Your task to perform on an android device: Open Youtube and go to the subscriptions tab Image 0: 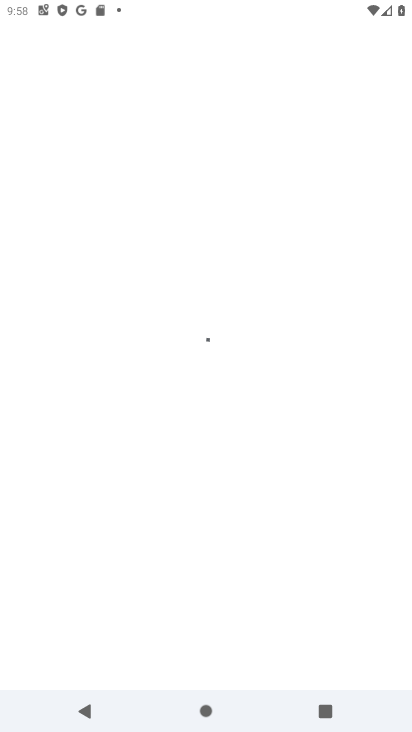
Step 0: press home button
Your task to perform on an android device: Open Youtube and go to the subscriptions tab Image 1: 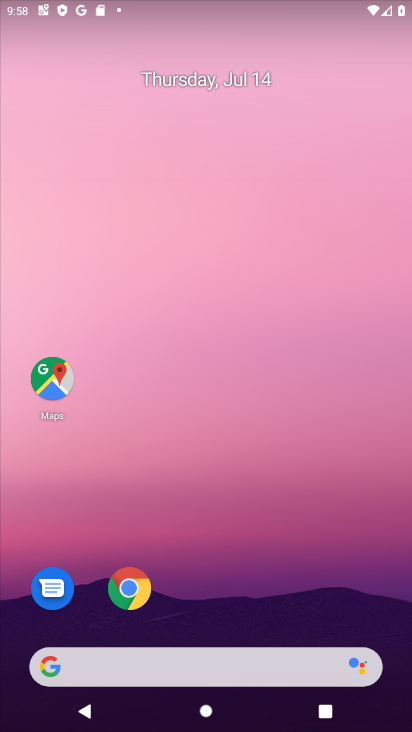
Step 1: drag from (144, 660) to (278, 22)
Your task to perform on an android device: Open Youtube and go to the subscriptions tab Image 2: 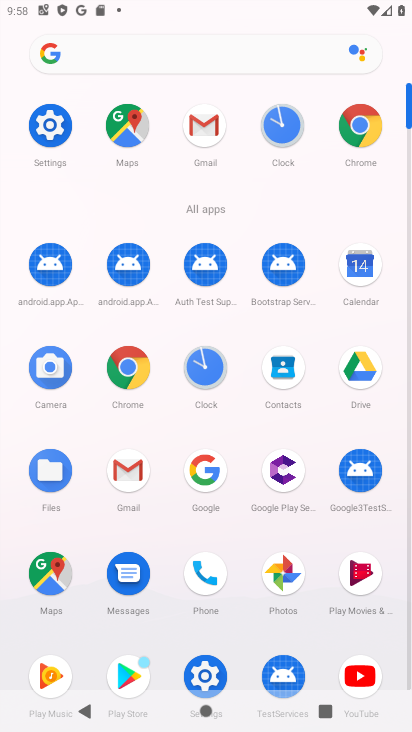
Step 2: click (370, 679)
Your task to perform on an android device: Open Youtube and go to the subscriptions tab Image 3: 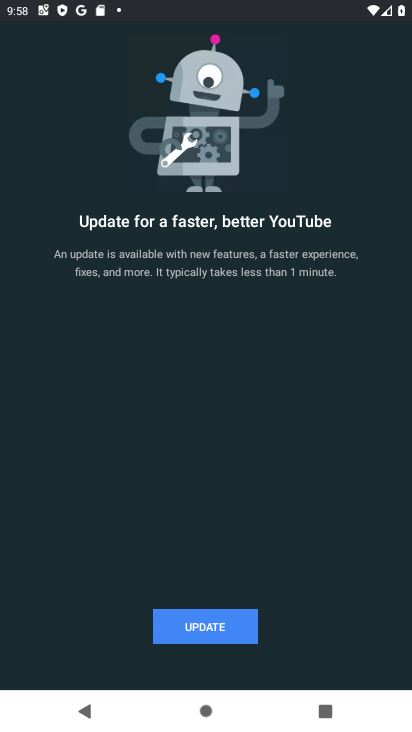
Step 3: click (221, 624)
Your task to perform on an android device: Open Youtube and go to the subscriptions tab Image 4: 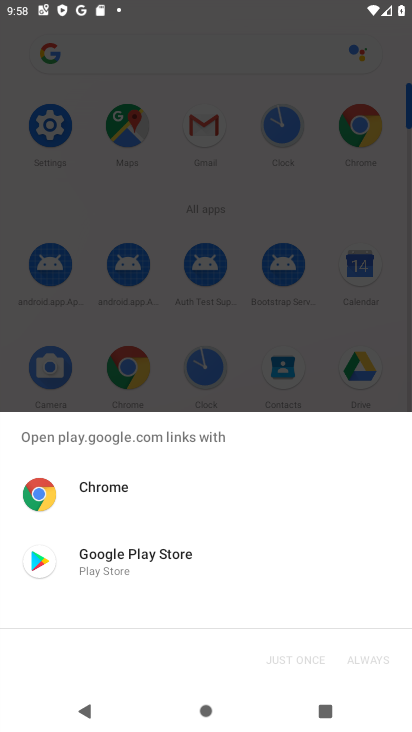
Step 4: click (143, 557)
Your task to perform on an android device: Open Youtube and go to the subscriptions tab Image 5: 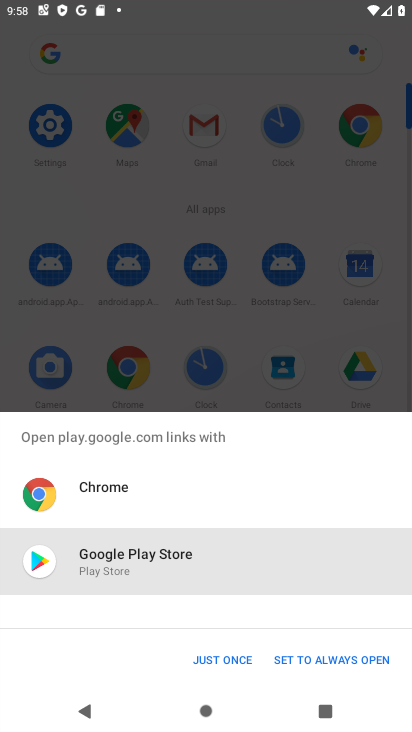
Step 5: click (221, 658)
Your task to perform on an android device: Open Youtube and go to the subscriptions tab Image 6: 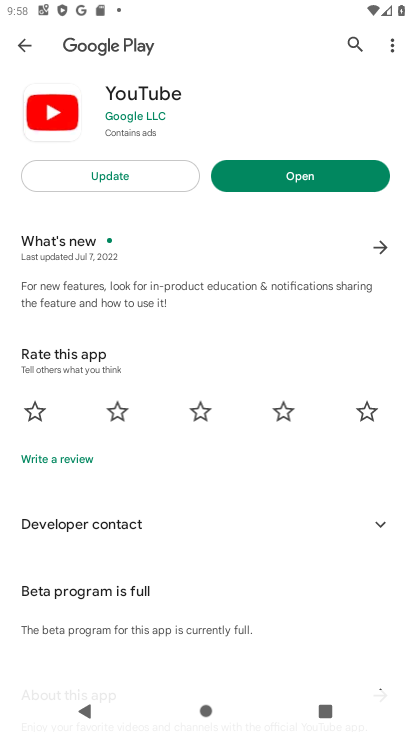
Step 6: click (129, 173)
Your task to perform on an android device: Open Youtube and go to the subscriptions tab Image 7: 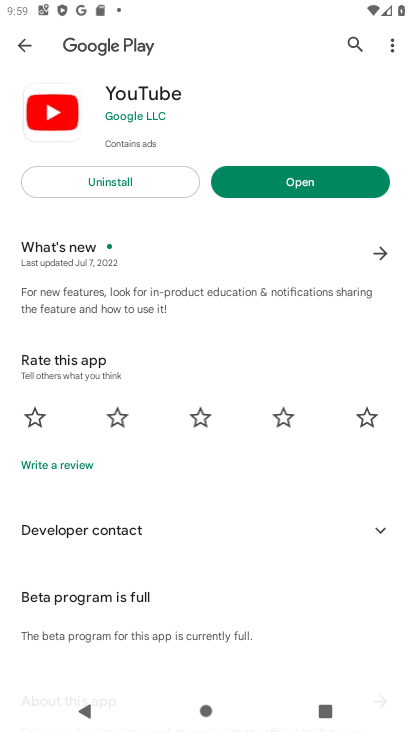
Step 7: click (339, 175)
Your task to perform on an android device: Open Youtube and go to the subscriptions tab Image 8: 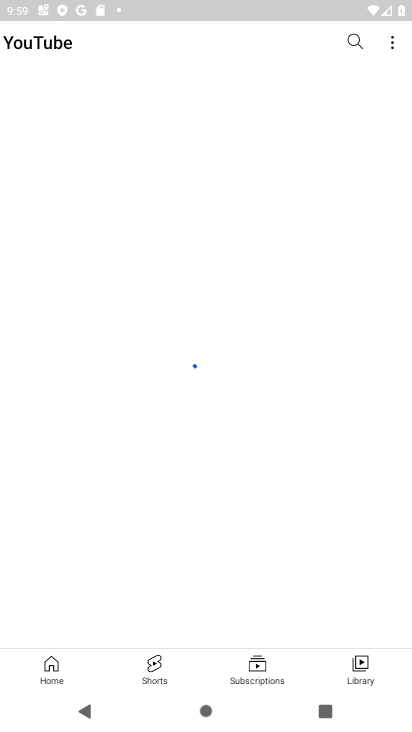
Step 8: click (248, 668)
Your task to perform on an android device: Open Youtube and go to the subscriptions tab Image 9: 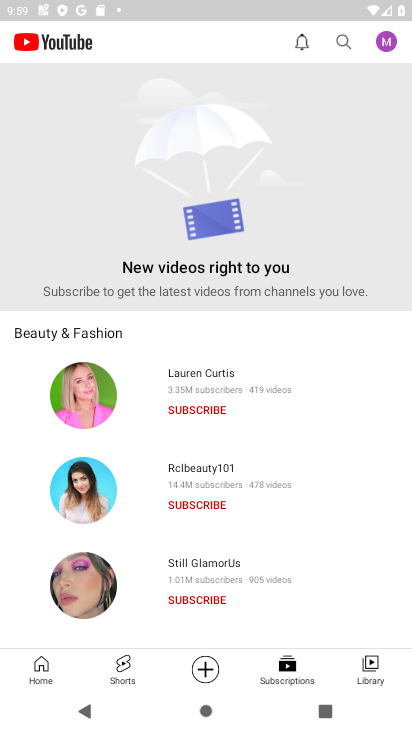
Step 9: task complete